Your task to perform on an android device: turn on the 24-hour format for clock Image 0: 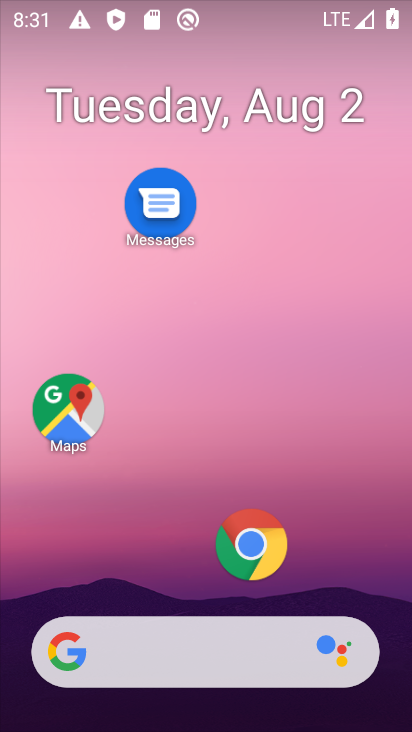
Step 0: drag from (159, 599) to (188, 227)
Your task to perform on an android device: turn on the 24-hour format for clock Image 1: 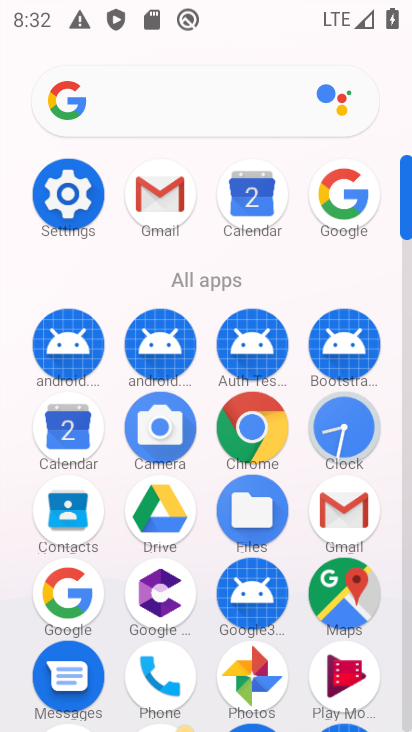
Step 1: click (344, 422)
Your task to perform on an android device: turn on the 24-hour format for clock Image 2: 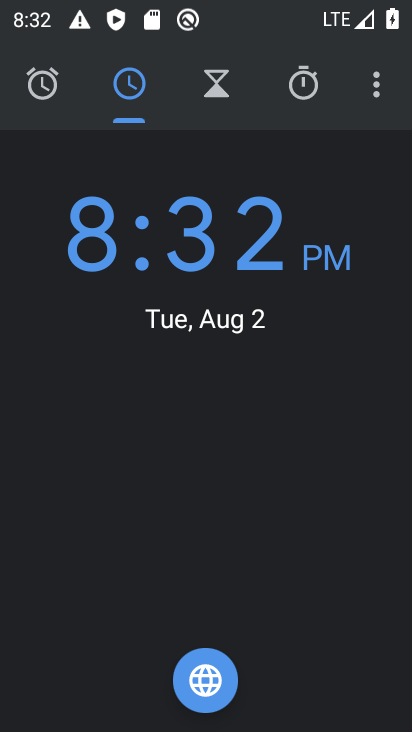
Step 2: click (361, 90)
Your task to perform on an android device: turn on the 24-hour format for clock Image 3: 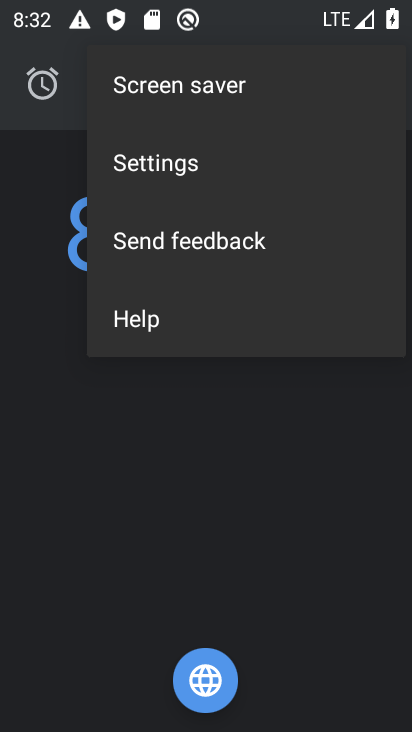
Step 3: click (225, 179)
Your task to perform on an android device: turn on the 24-hour format for clock Image 4: 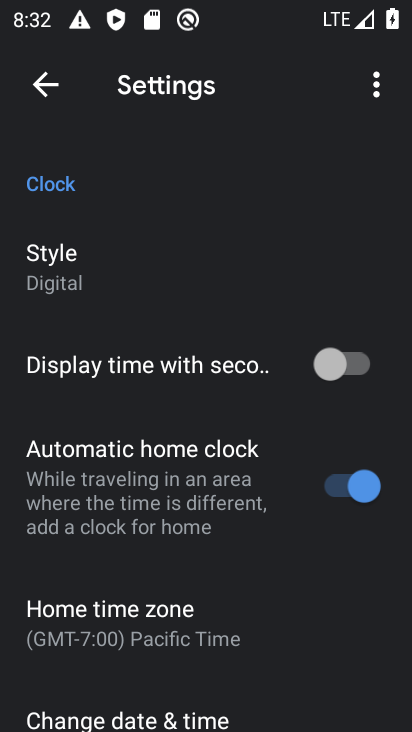
Step 4: drag from (196, 622) to (211, 253)
Your task to perform on an android device: turn on the 24-hour format for clock Image 5: 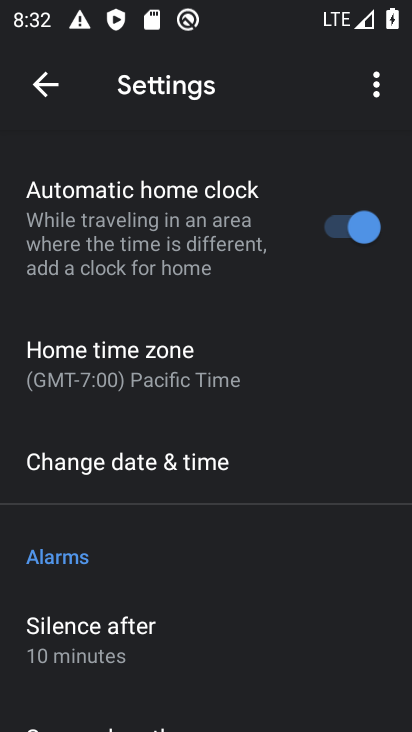
Step 5: click (184, 464)
Your task to perform on an android device: turn on the 24-hour format for clock Image 6: 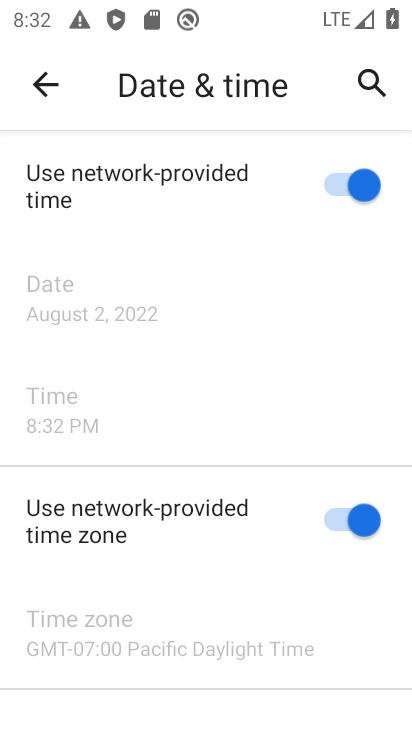
Step 6: drag from (273, 617) to (273, 257)
Your task to perform on an android device: turn on the 24-hour format for clock Image 7: 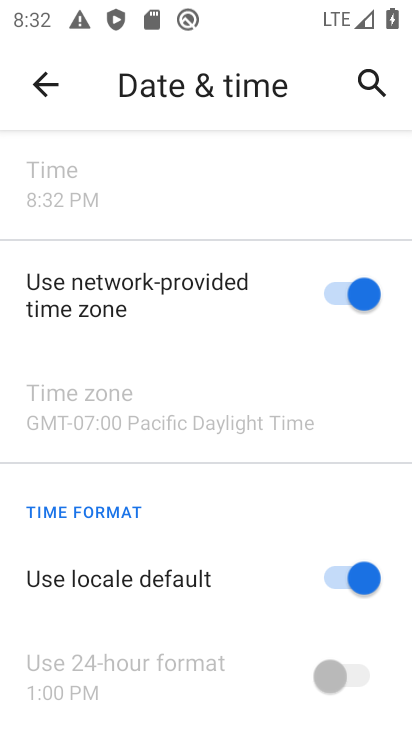
Step 7: drag from (218, 623) to (236, 358)
Your task to perform on an android device: turn on the 24-hour format for clock Image 8: 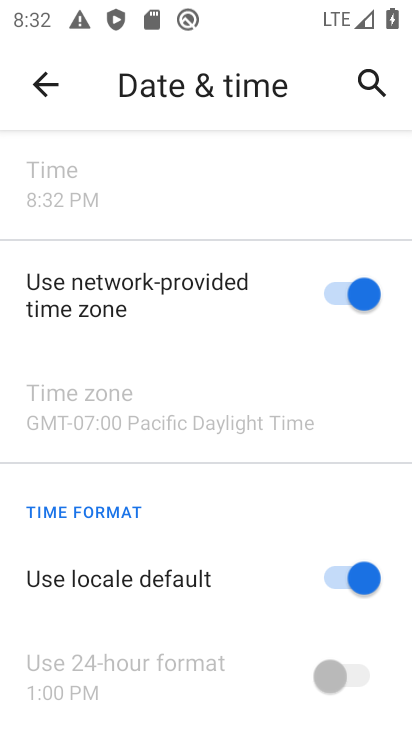
Step 8: click (334, 569)
Your task to perform on an android device: turn on the 24-hour format for clock Image 9: 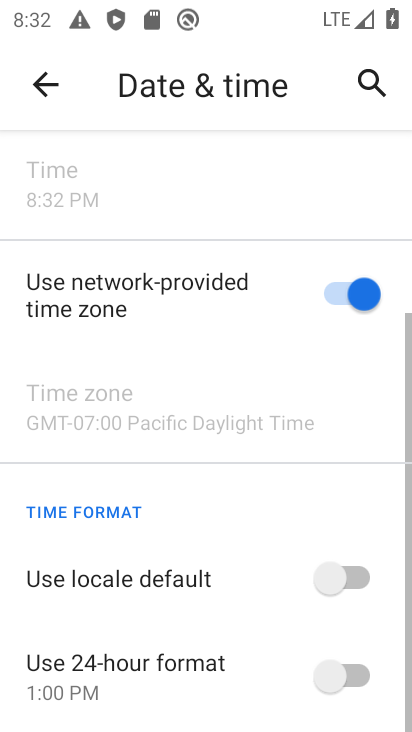
Step 9: click (351, 681)
Your task to perform on an android device: turn on the 24-hour format for clock Image 10: 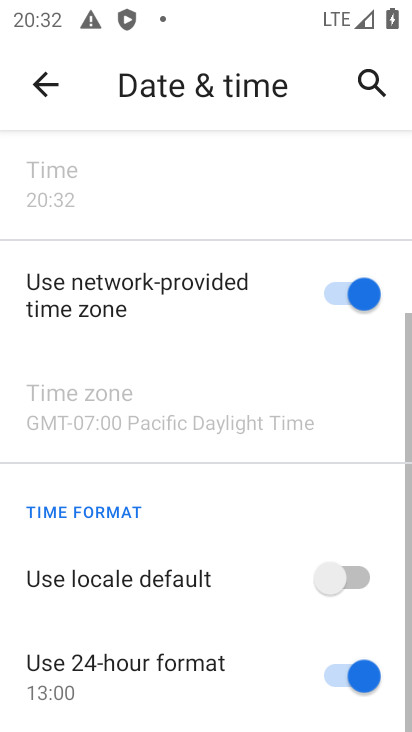
Step 10: task complete